Your task to perform on an android device: change the upload size in google photos Image 0: 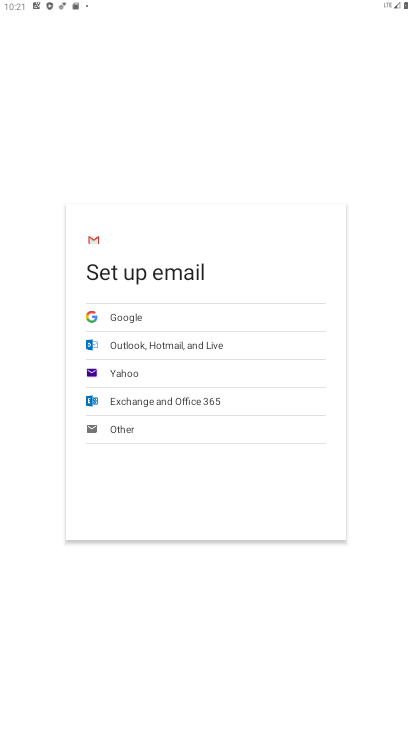
Step 0: press home button
Your task to perform on an android device: change the upload size in google photos Image 1: 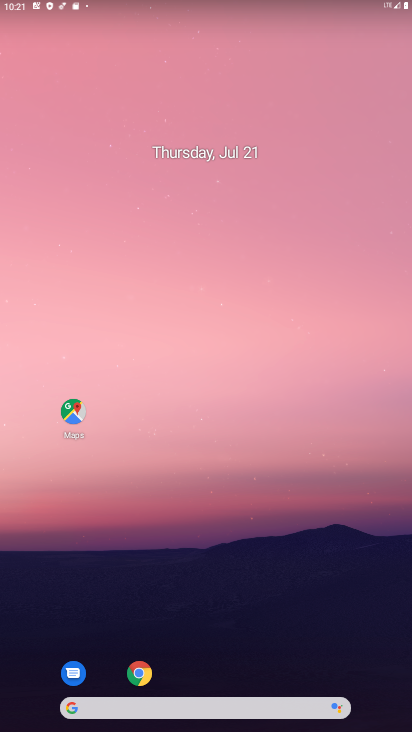
Step 1: drag from (224, 654) to (220, 220)
Your task to perform on an android device: change the upload size in google photos Image 2: 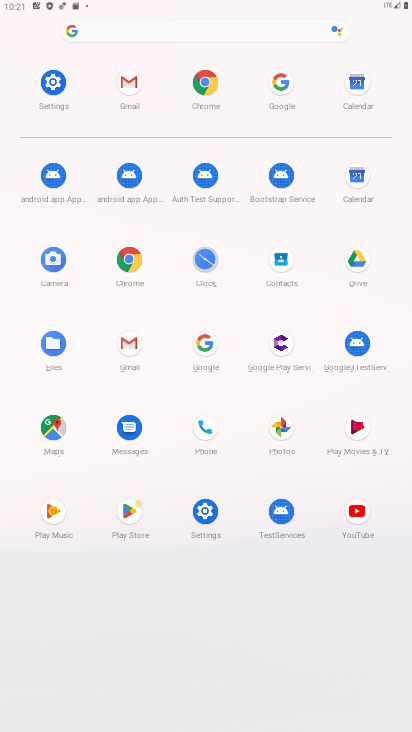
Step 2: click (280, 433)
Your task to perform on an android device: change the upload size in google photos Image 3: 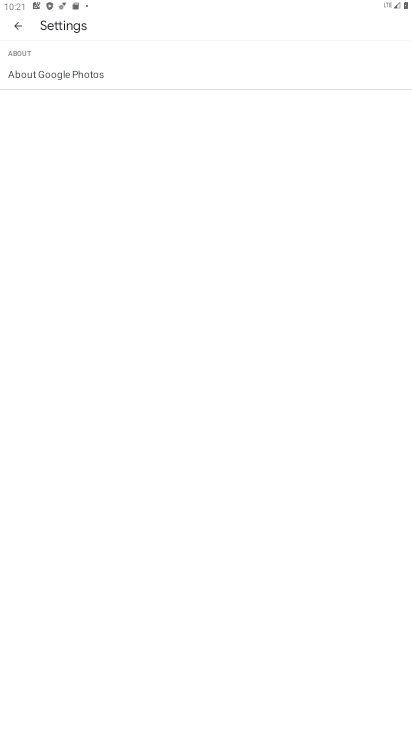
Step 3: click (9, 26)
Your task to perform on an android device: change the upload size in google photos Image 4: 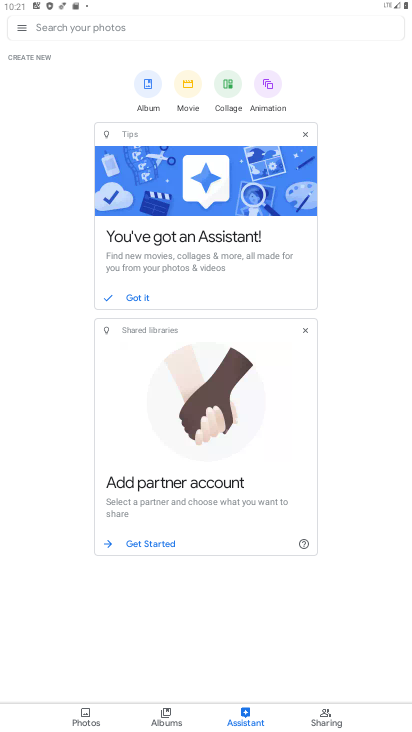
Step 4: click (17, 32)
Your task to perform on an android device: change the upload size in google photos Image 5: 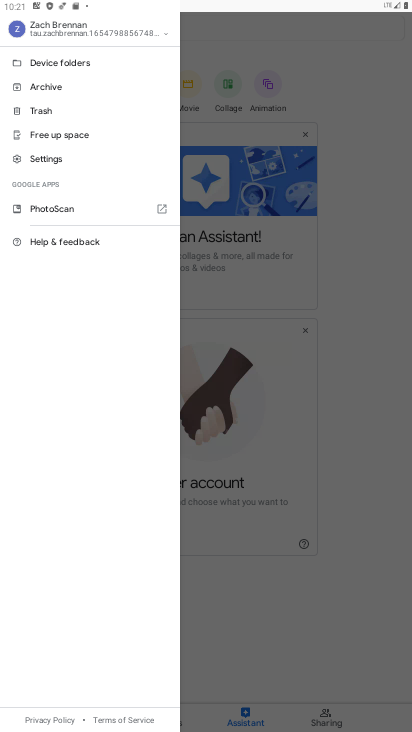
Step 5: click (44, 161)
Your task to perform on an android device: change the upload size in google photos Image 6: 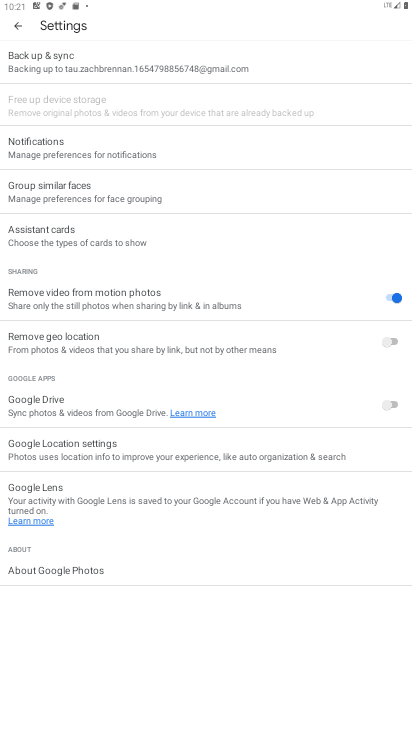
Step 6: click (126, 64)
Your task to perform on an android device: change the upload size in google photos Image 7: 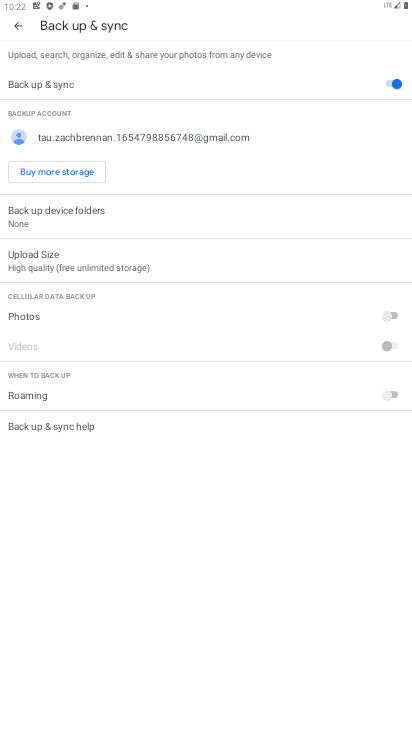
Step 7: click (87, 257)
Your task to perform on an android device: change the upload size in google photos Image 8: 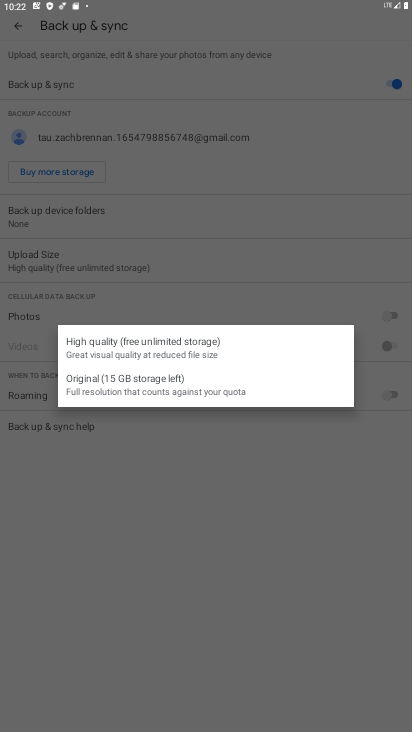
Step 8: click (140, 375)
Your task to perform on an android device: change the upload size in google photos Image 9: 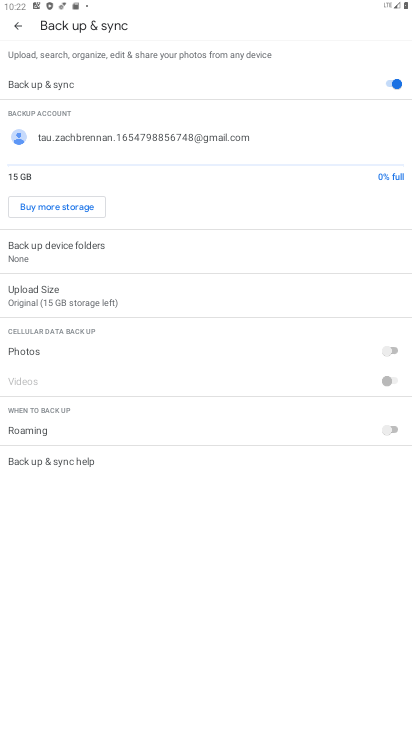
Step 9: task complete